Your task to perform on an android device: open app "AliExpress" (install if not already installed) Image 0: 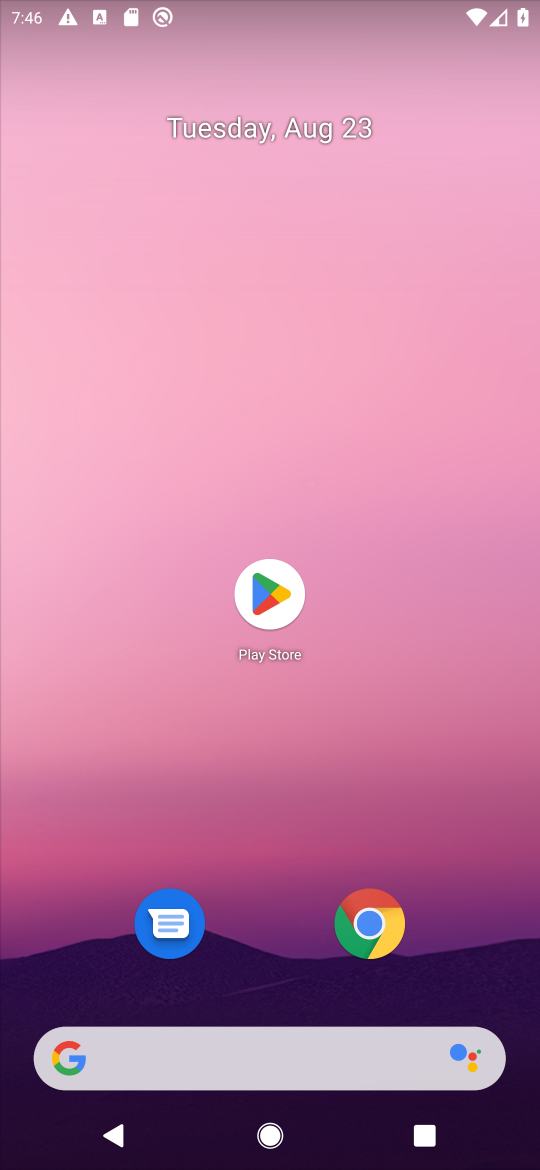
Step 0: click (268, 591)
Your task to perform on an android device: open app "AliExpress" (install if not already installed) Image 1: 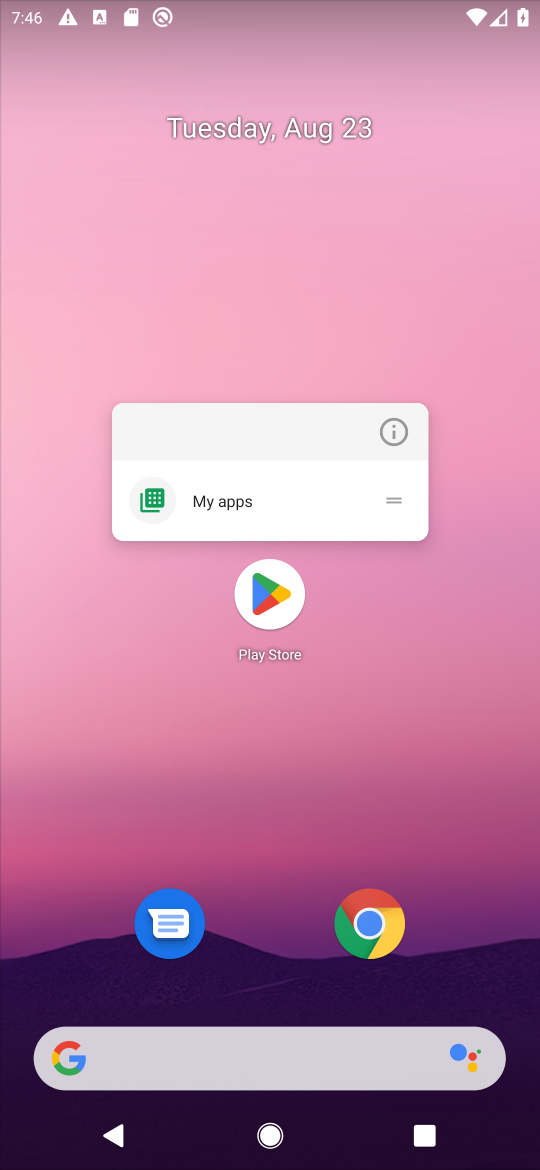
Step 1: click (268, 591)
Your task to perform on an android device: open app "AliExpress" (install if not already installed) Image 2: 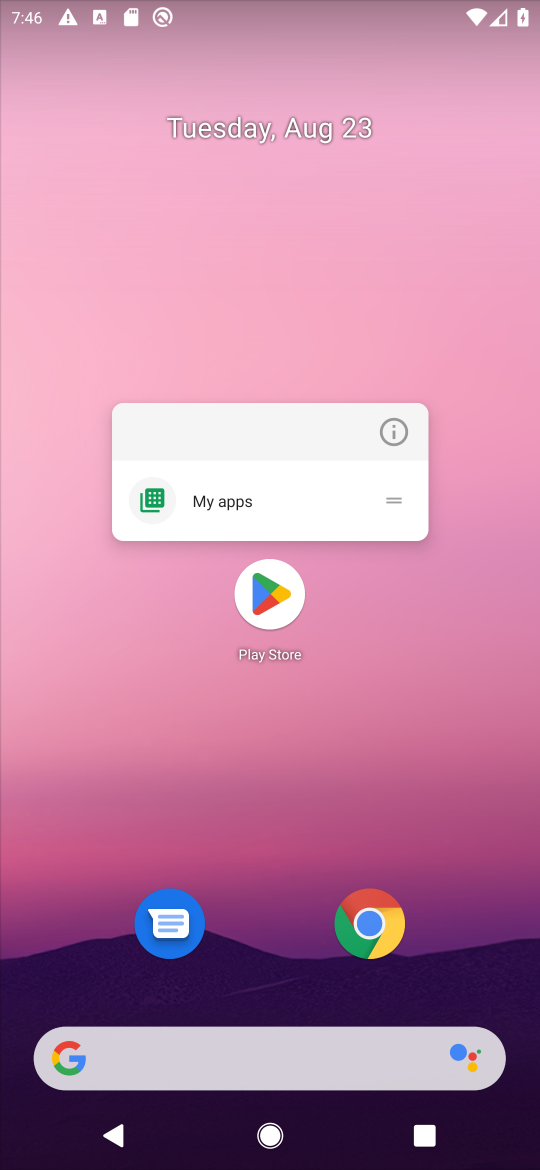
Step 2: click (268, 591)
Your task to perform on an android device: open app "AliExpress" (install if not already installed) Image 3: 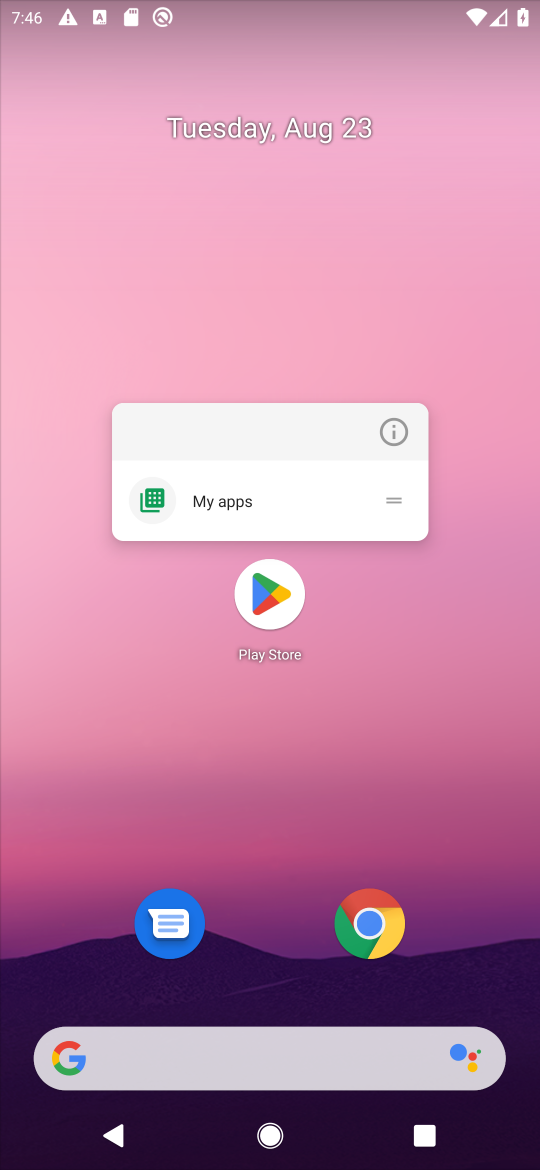
Step 3: click (270, 588)
Your task to perform on an android device: open app "AliExpress" (install if not already installed) Image 4: 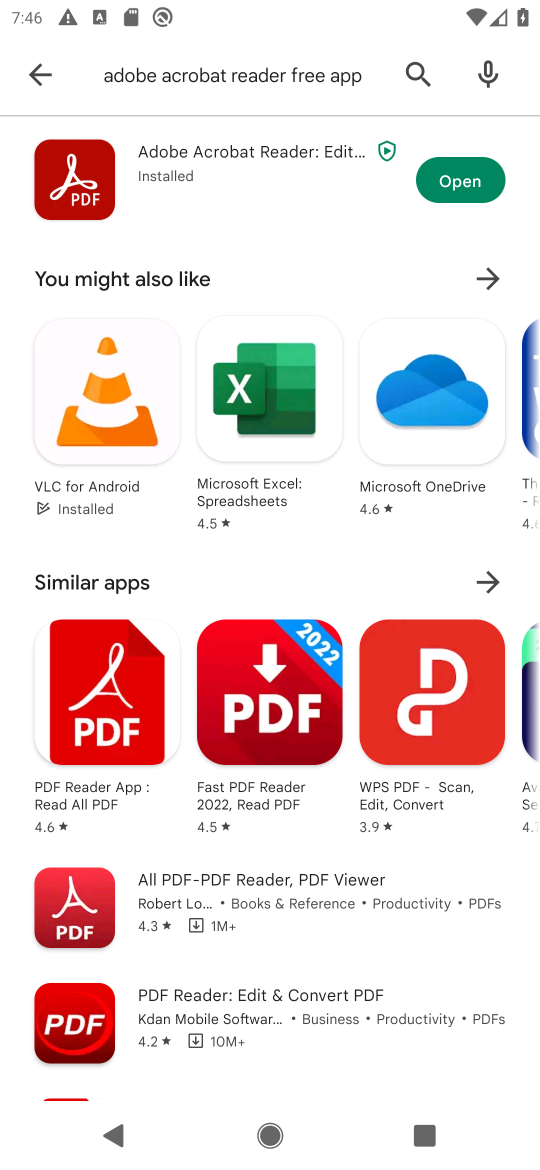
Step 4: click (421, 77)
Your task to perform on an android device: open app "AliExpress" (install if not already installed) Image 5: 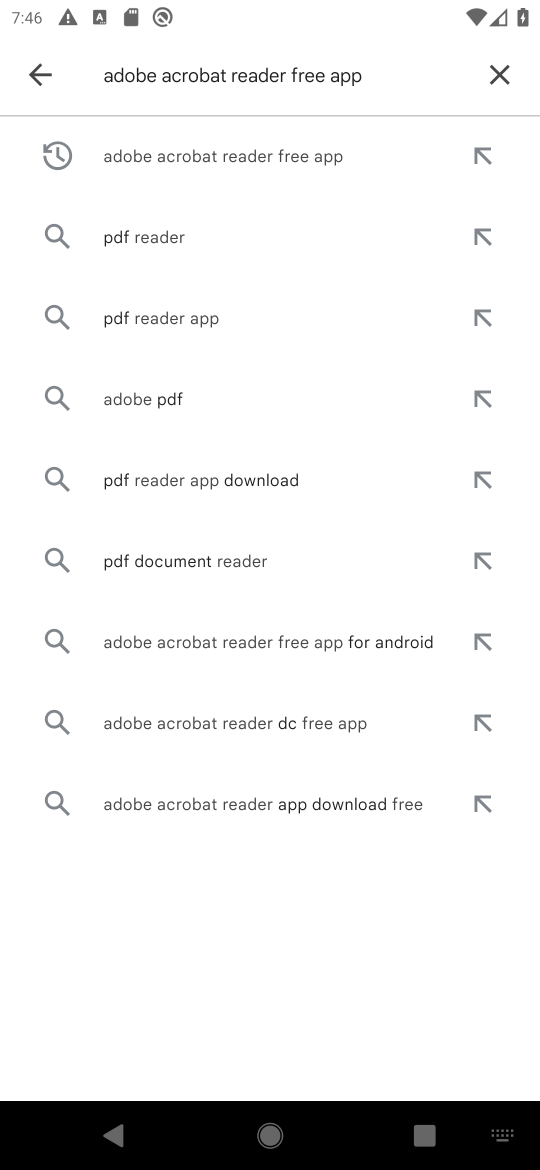
Step 5: click (505, 71)
Your task to perform on an android device: open app "AliExpress" (install if not already installed) Image 6: 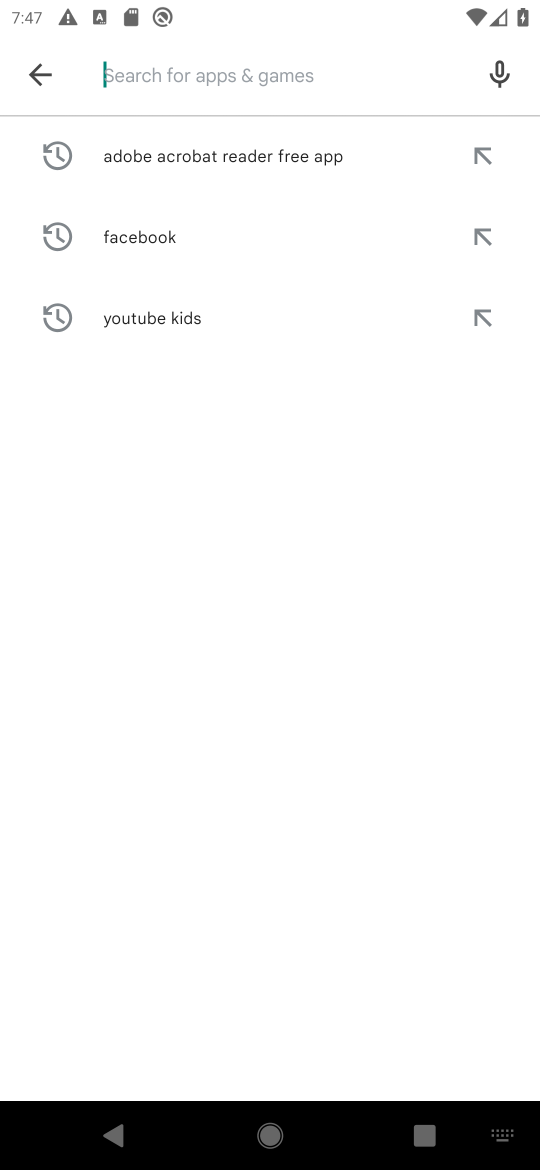
Step 6: type "AliExpress"
Your task to perform on an android device: open app "AliExpress" (install if not already installed) Image 7: 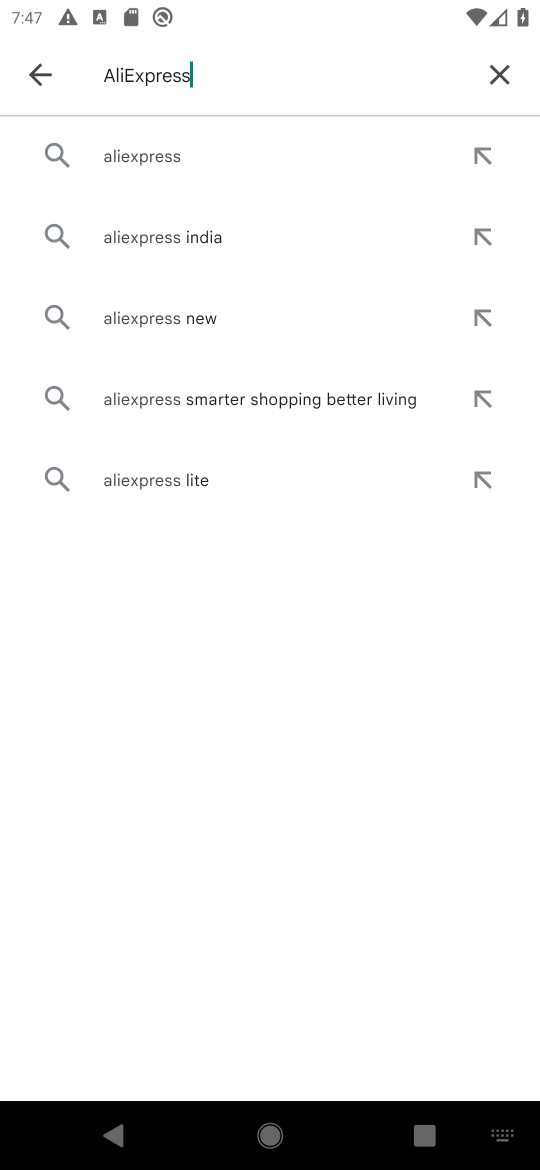
Step 7: click (148, 158)
Your task to perform on an android device: open app "AliExpress" (install if not already installed) Image 8: 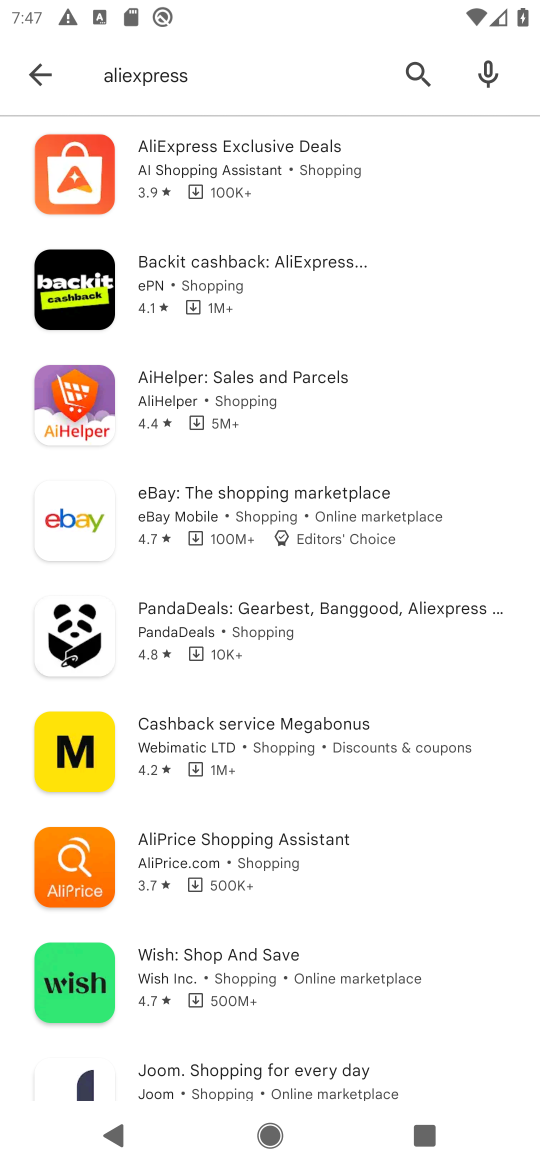
Step 8: click (253, 167)
Your task to perform on an android device: open app "AliExpress" (install if not already installed) Image 9: 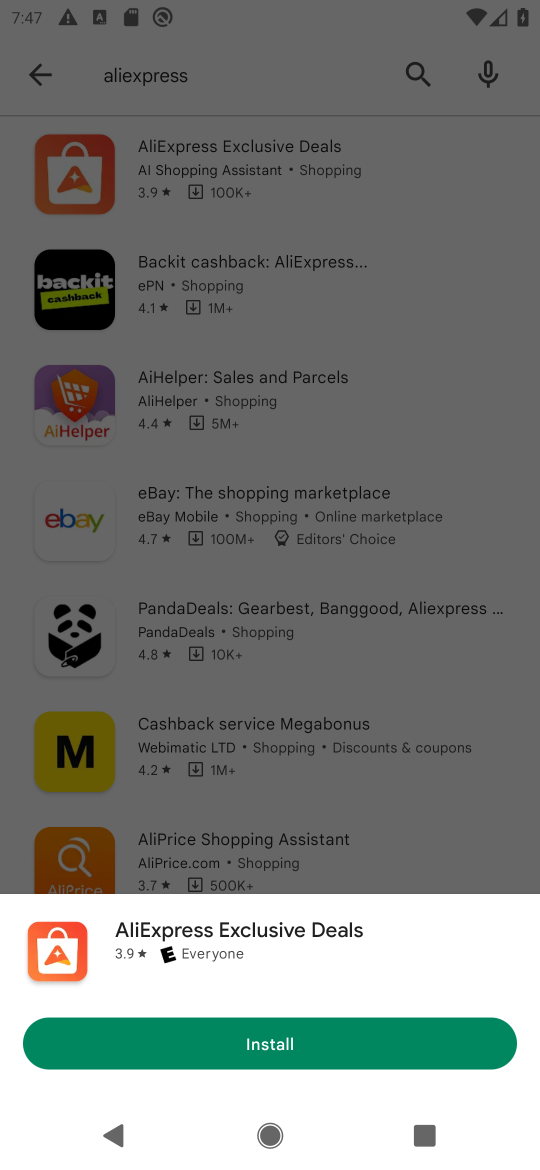
Step 9: click (268, 1048)
Your task to perform on an android device: open app "AliExpress" (install if not already installed) Image 10: 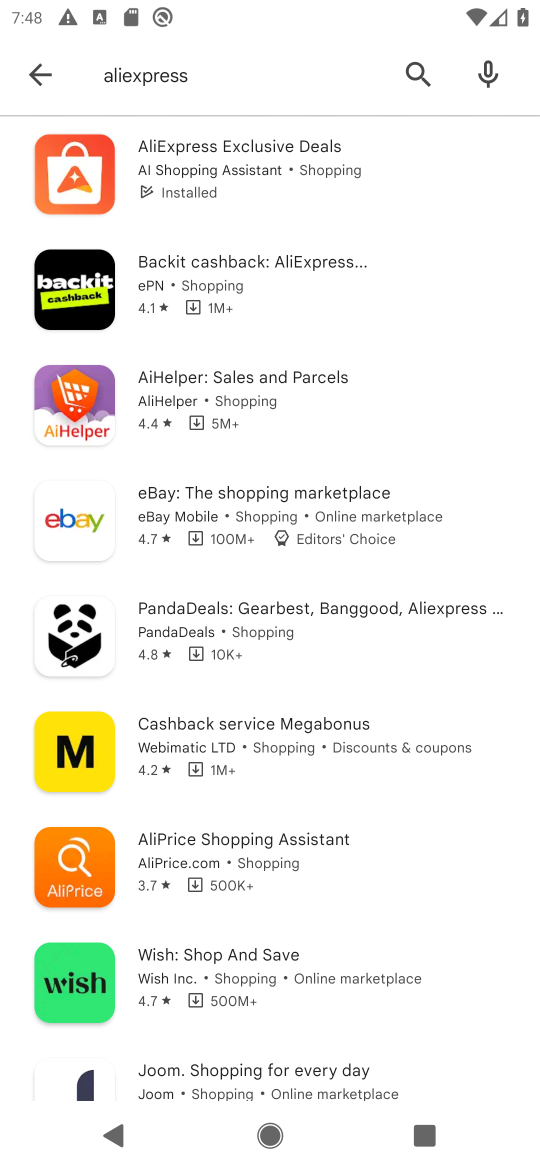
Step 10: task complete